Your task to perform on an android device: Show me popular videos on Youtube Image 0: 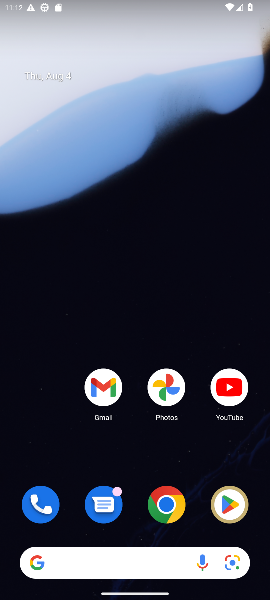
Step 0: click (231, 396)
Your task to perform on an android device: Show me popular videos on Youtube Image 1: 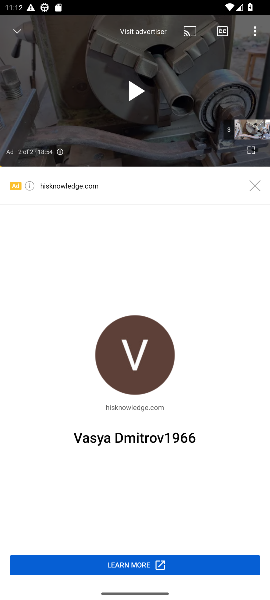
Step 1: click (20, 31)
Your task to perform on an android device: Show me popular videos on Youtube Image 2: 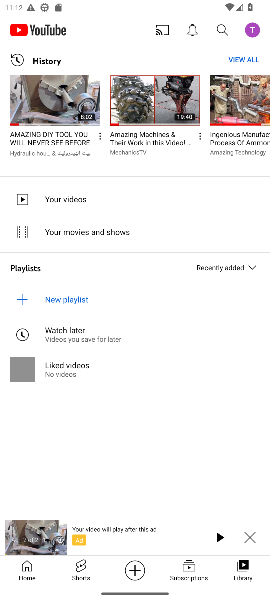
Step 2: click (27, 575)
Your task to perform on an android device: Show me popular videos on Youtube Image 3: 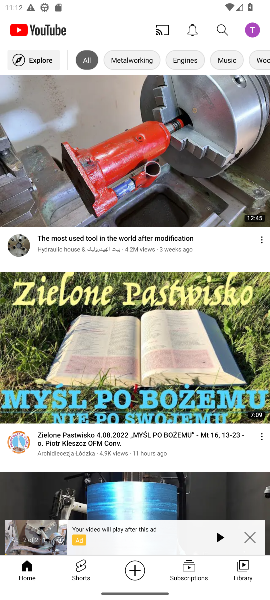
Step 3: click (48, 59)
Your task to perform on an android device: Show me popular videos on Youtube Image 4: 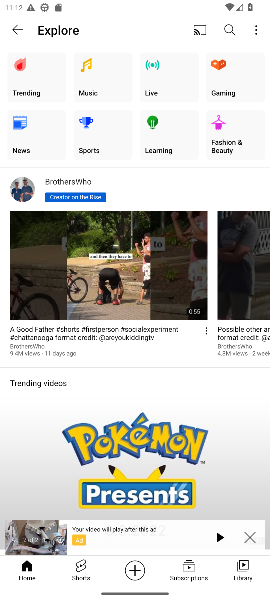
Step 4: click (19, 87)
Your task to perform on an android device: Show me popular videos on Youtube Image 5: 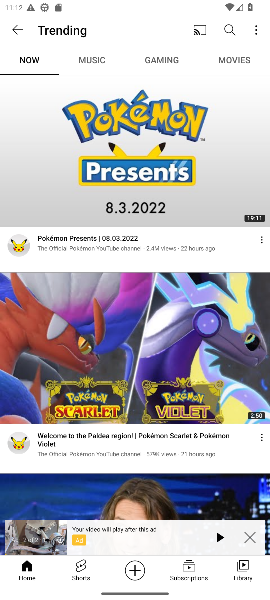
Step 5: task complete